Your task to perform on an android device: add a label to a message in the gmail app Image 0: 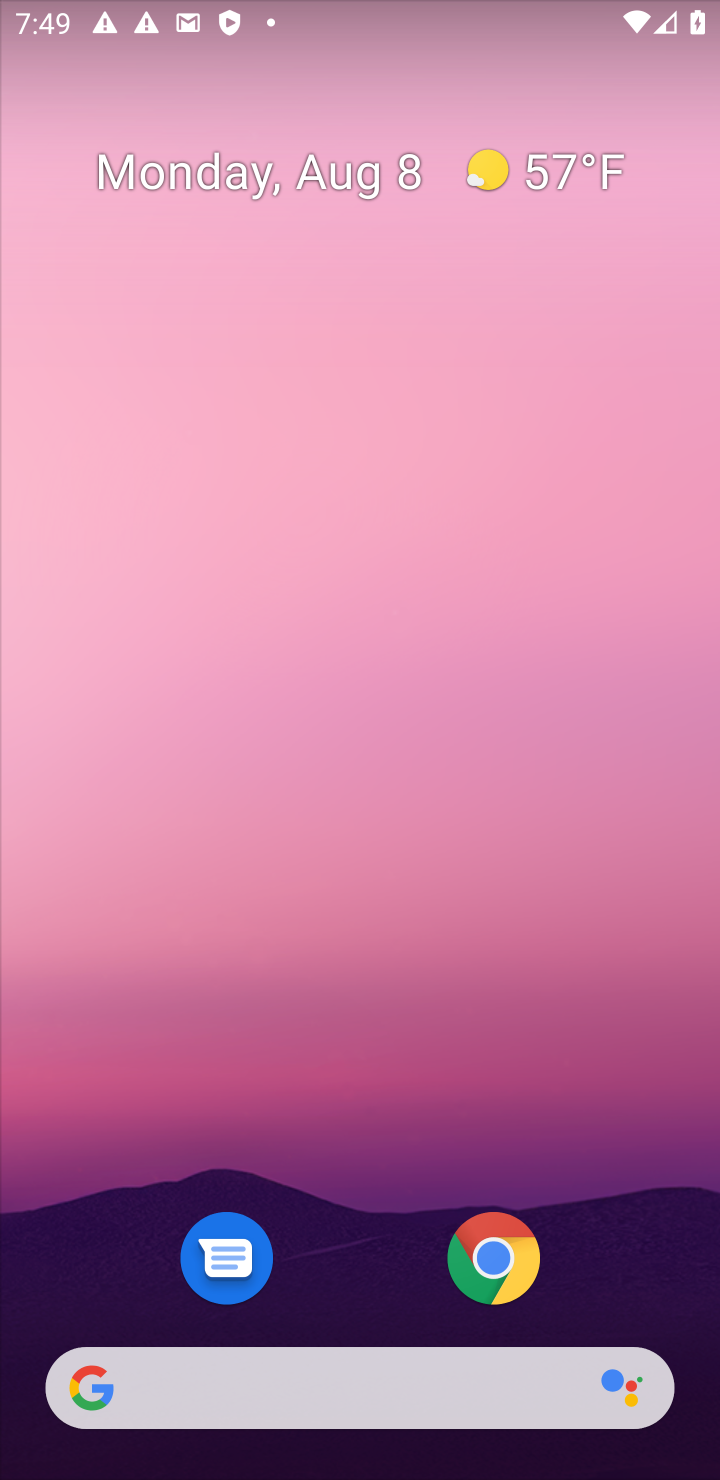
Step 0: drag from (401, 852) to (432, 408)
Your task to perform on an android device: add a label to a message in the gmail app Image 1: 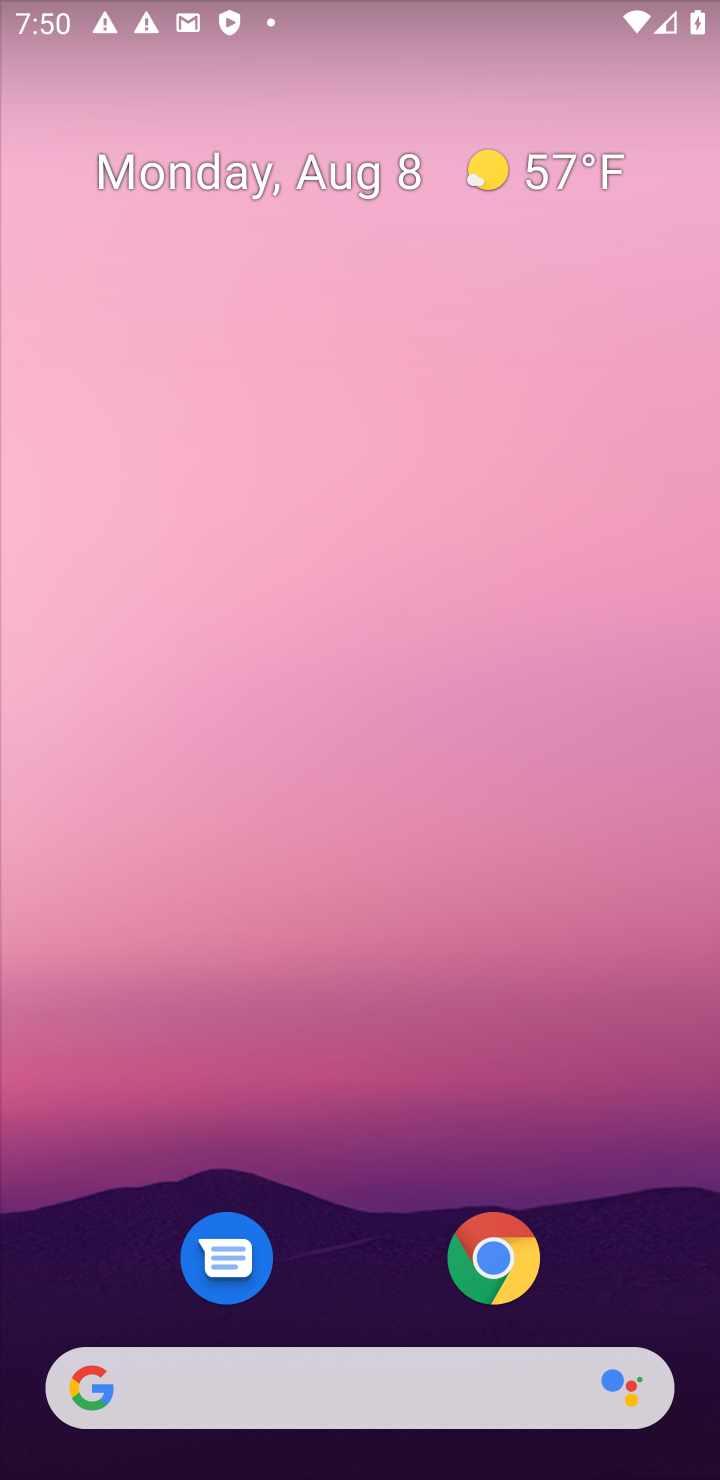
Step 1: drag from (357, 1023) to (292, 386)
Your task to perform on an android device: add a label to a message in the gmail app Image 2: 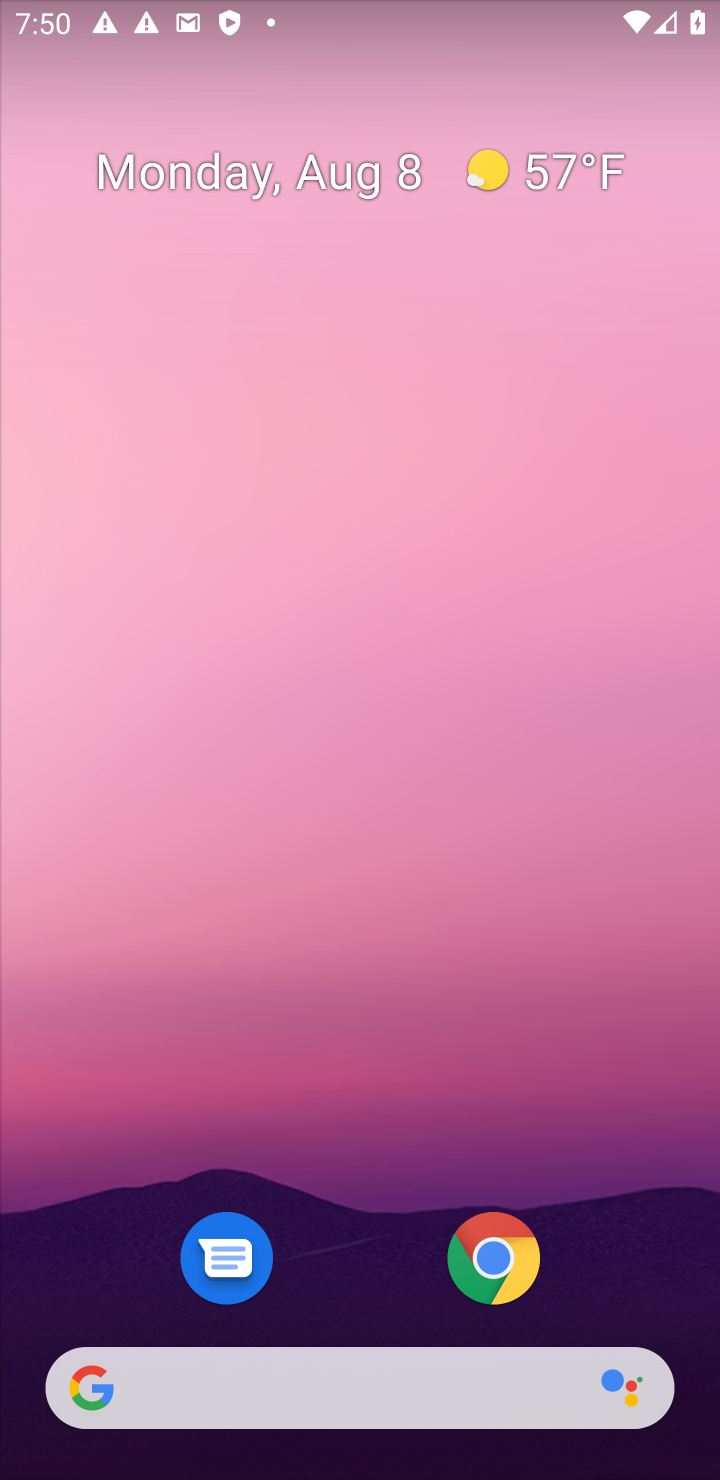
Step 2: click (509, 1287)
Your task to perform on an android device: add a label to a message in the gmail app Image 3: 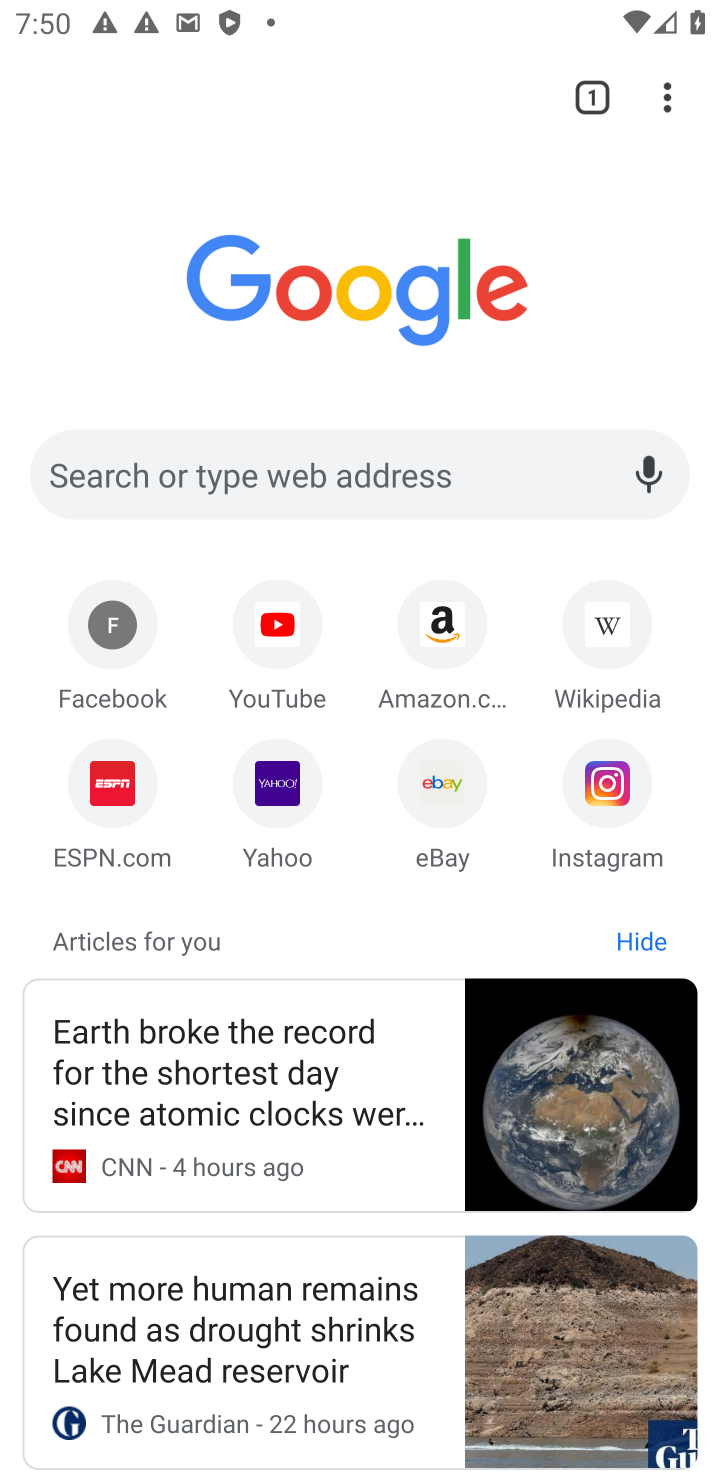
Step 3: task complete